Your task to perform on an android device: Open the calendar and show me this week's events Image 0: 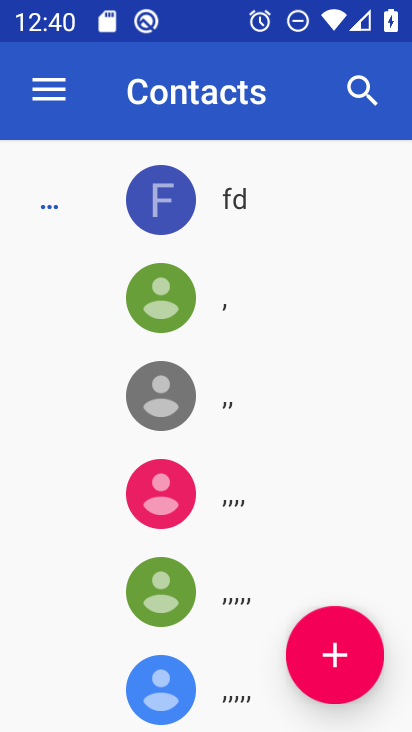
Step 0: press home button
Your task to perform on an android device: Open the calendar and show me this week's events Image 1: 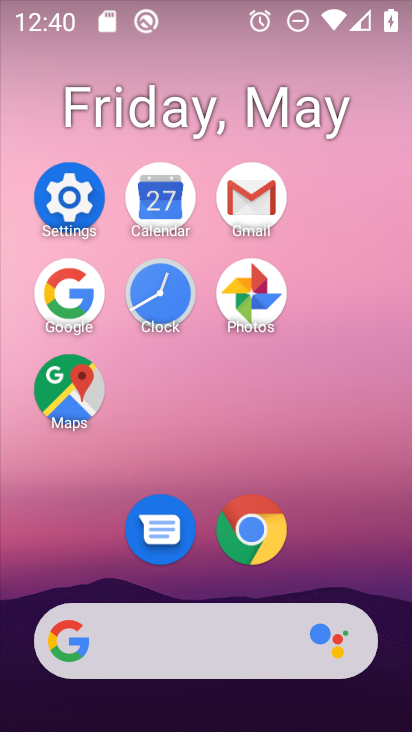
Step 1: click (152, 203)
Your task to perform on an android device: Open the calendar and show me this week's events Image 2: 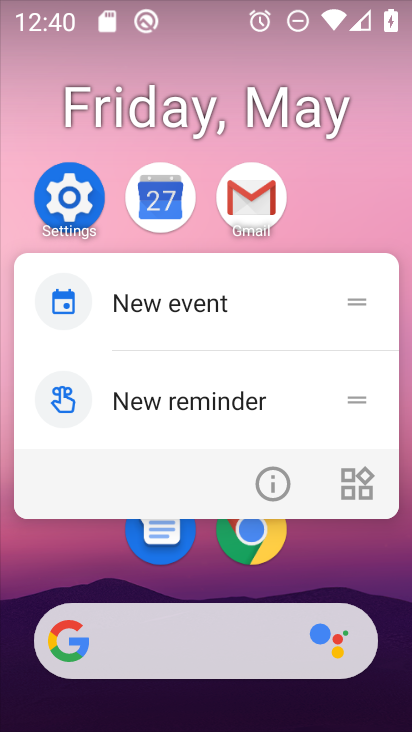
Step 2: click (152, 203)
Your task to perform on an android device: Open the calendar and show me this week's events Image 3: 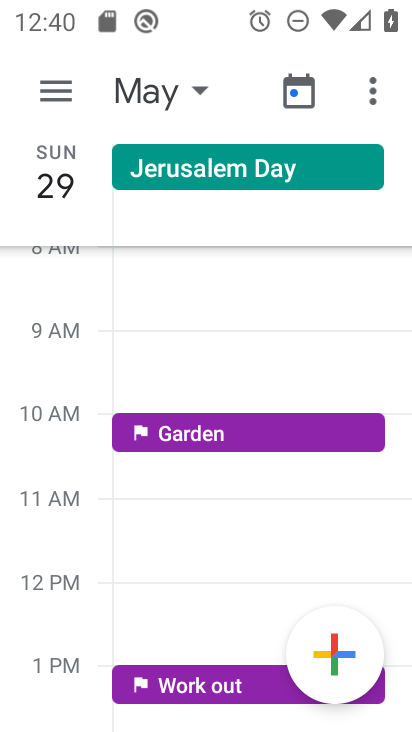
Step 3: click (41, 89)
Your task to perform on an android device: Open the calendar and show me this week's events Image 4: 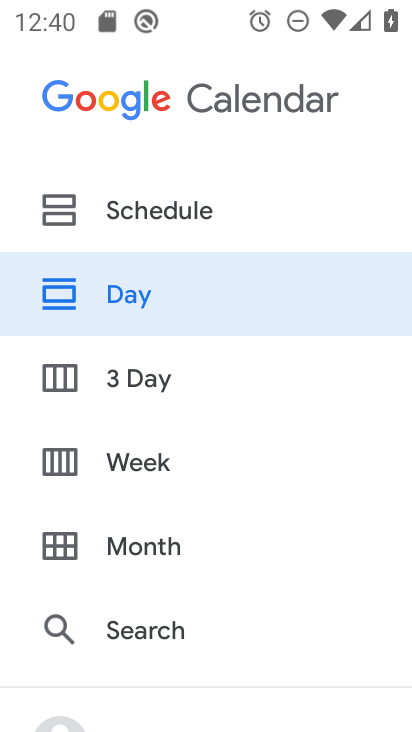
Step 4: click (187, 456)
Your task to perform on an android device: Open the calendar and show me this week's events Image 5: 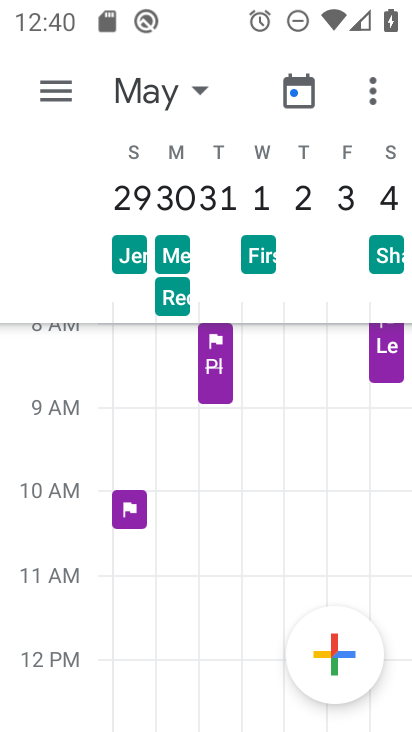
Step 5: task complete